Your task to perform on an android device: Open display settings Image 0: 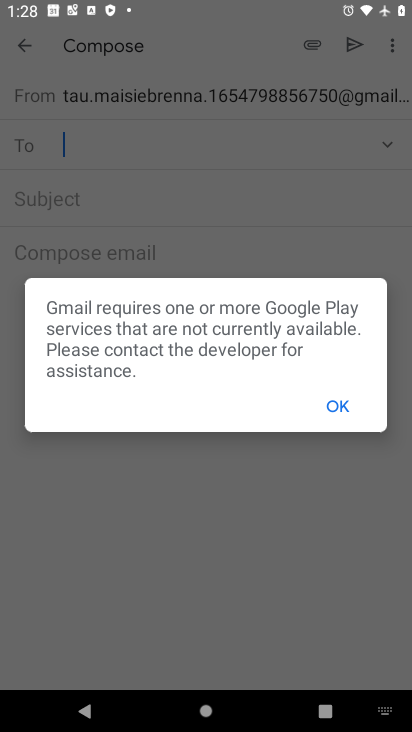
Step 0: press home button
Your task to perform on an android device: Open display settings Image 1: 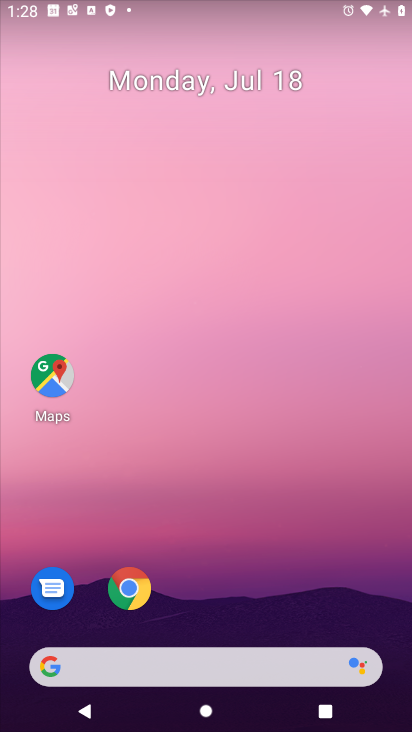
Step 1: drag from (277, 644) to (331, 281)
Your task to perform on an android device: Open display settings Image 2: 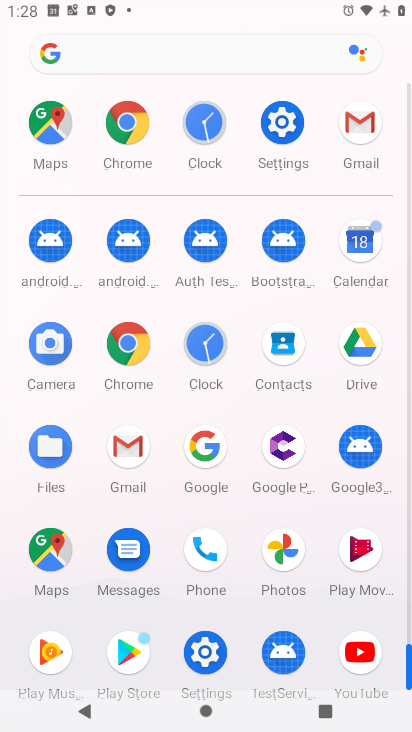
Step 2: click (216, 355)
Your task to perform on an android device: Open display settings Image 3: 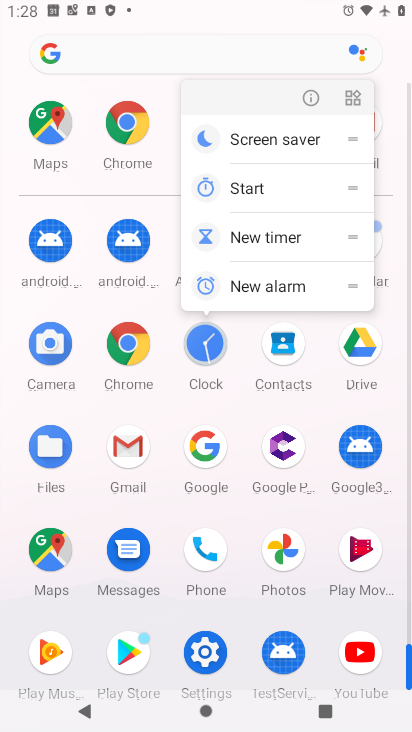
Step 3: drag from (129, 534) to (165, 231)
Your task to perform on an android device: Open display settings Image 4: 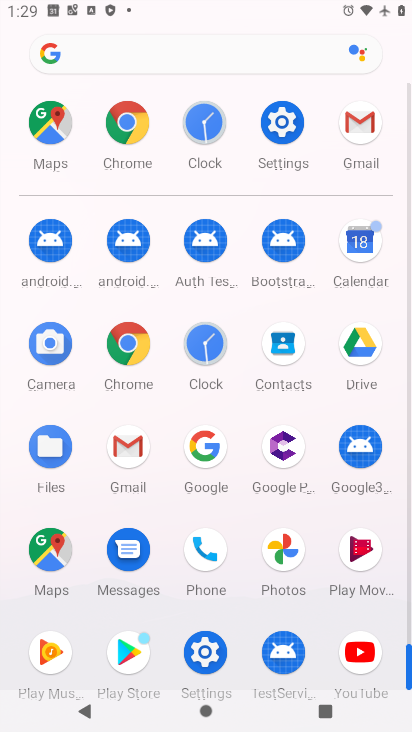
Step 4: click (285, 147)
Your task to perform on an android device: Open display settings Image 5: 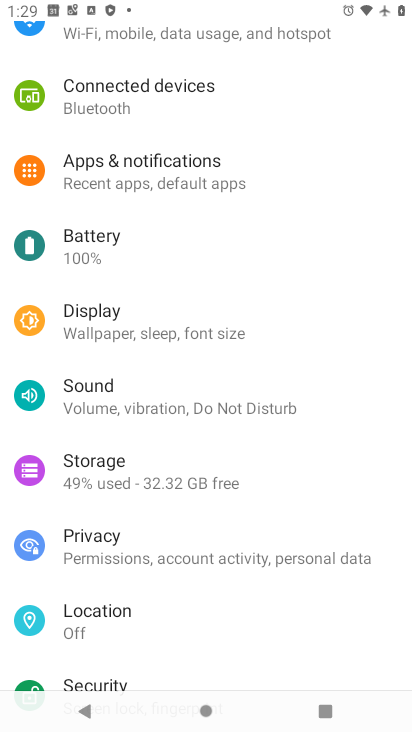
Step 5: click (170, 326)
Your task to perform on an android device: Open display settings Image 6: 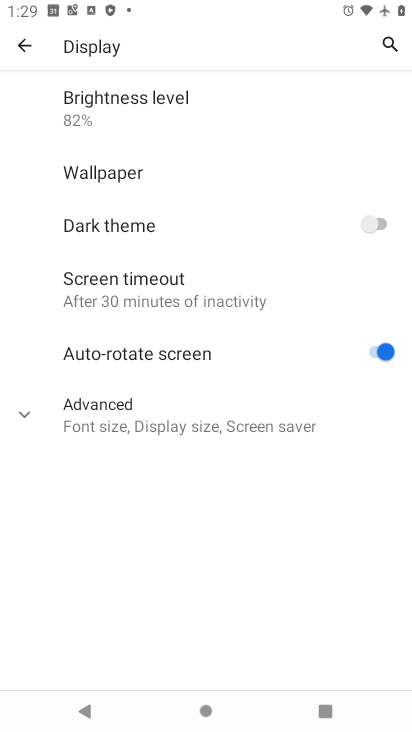
Step 6: click (181, 413)
Your task to perform on an android device: Open display settings Image 7: 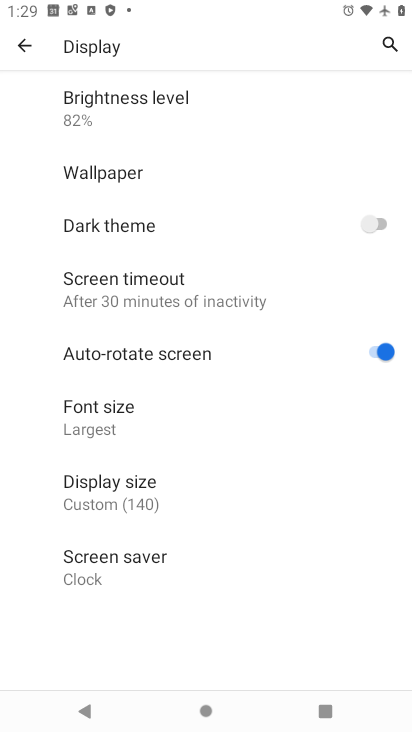
Step 7: task complete